Your task to perform on an android device: turn on the 24-hour format for clock Image 0: 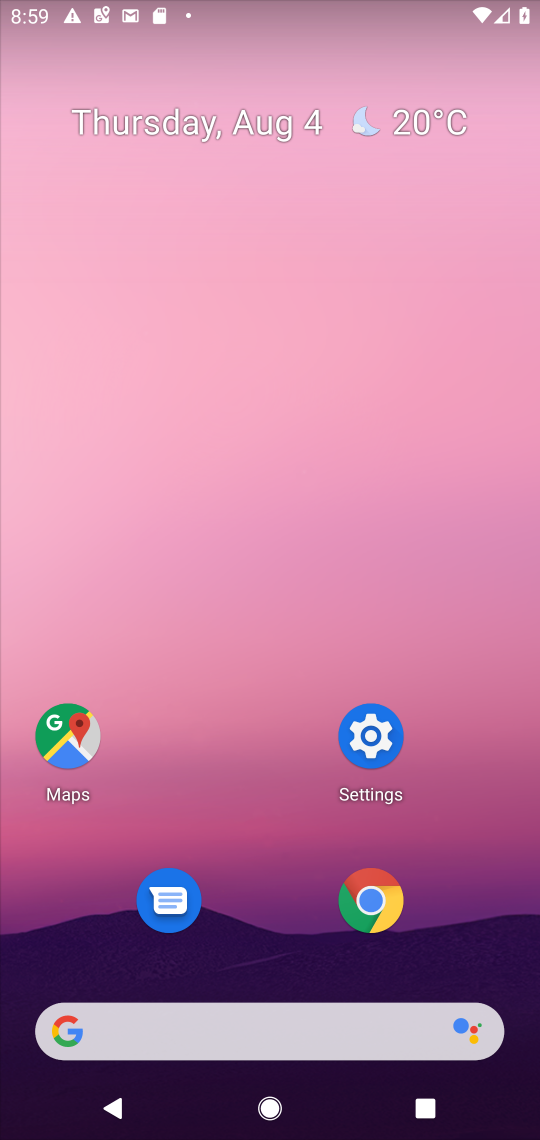
Step 0: press home button
Your task to perform on an android device: turn on the 24-hour format for clock Image 1: 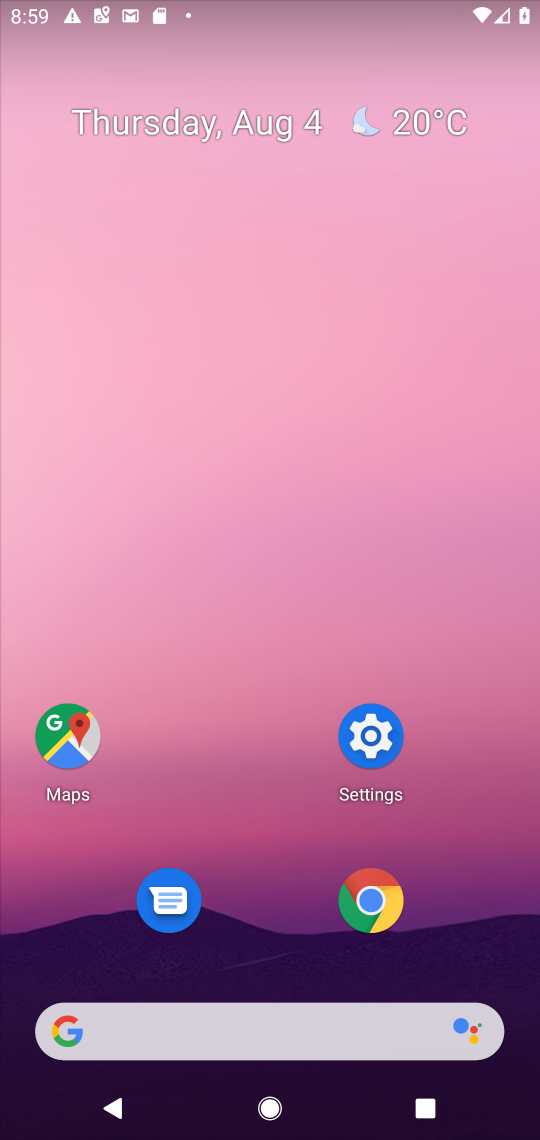
Step 1: drag from (248, 1005) to (414, 120)
Your task to perform on an android device: turn on the 24-hour format for clock Image 2: 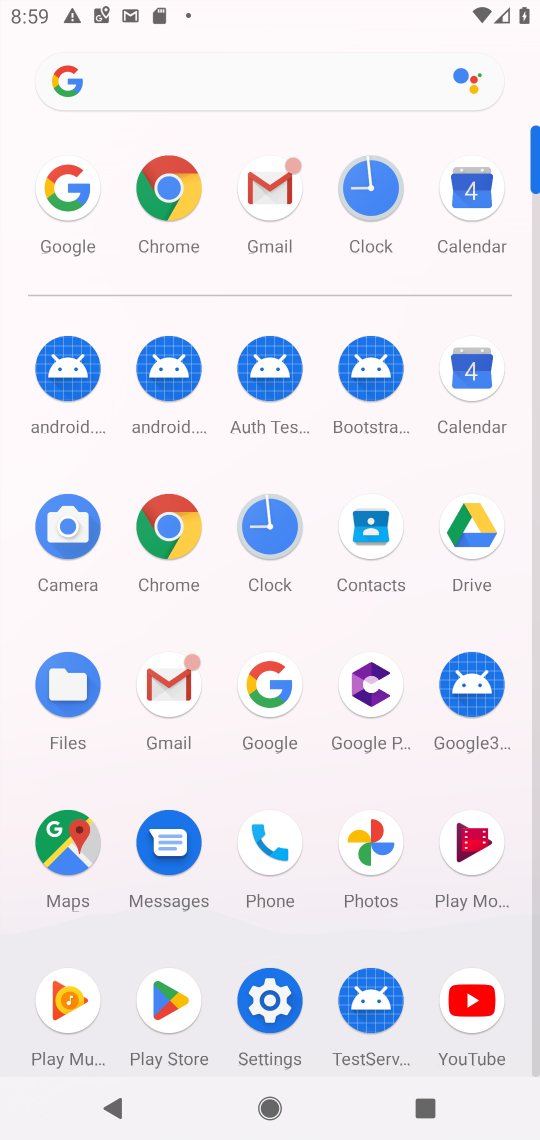
Step 2: click (268, 534)
Your task to perform on an android device: turn on the 24-hour format for clock Image 3: 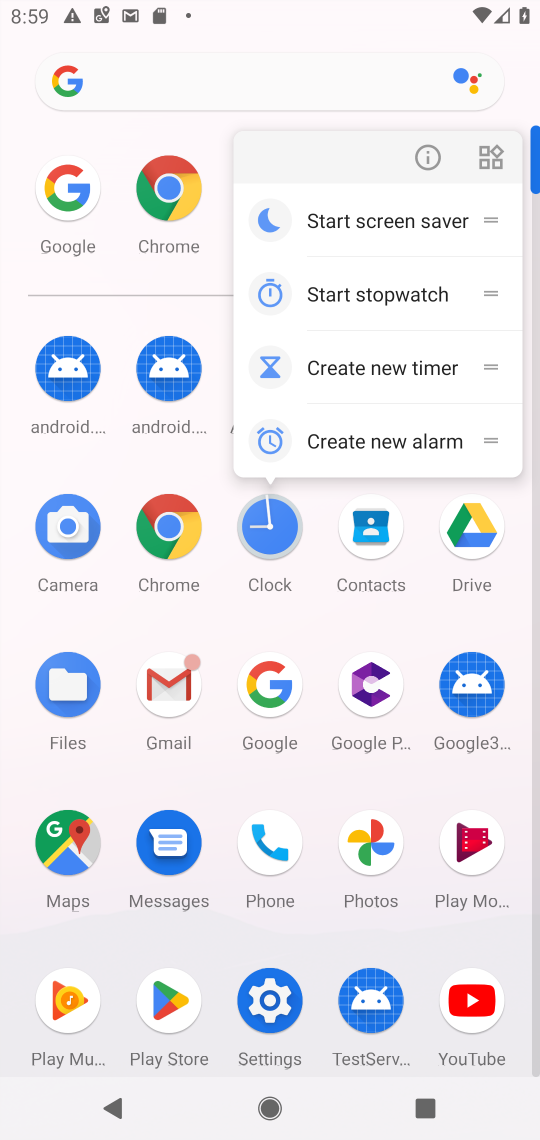
Step 3: click (268, 532)
Your task to perform on an android device: turn on the 24-hour format for clock Image 4: 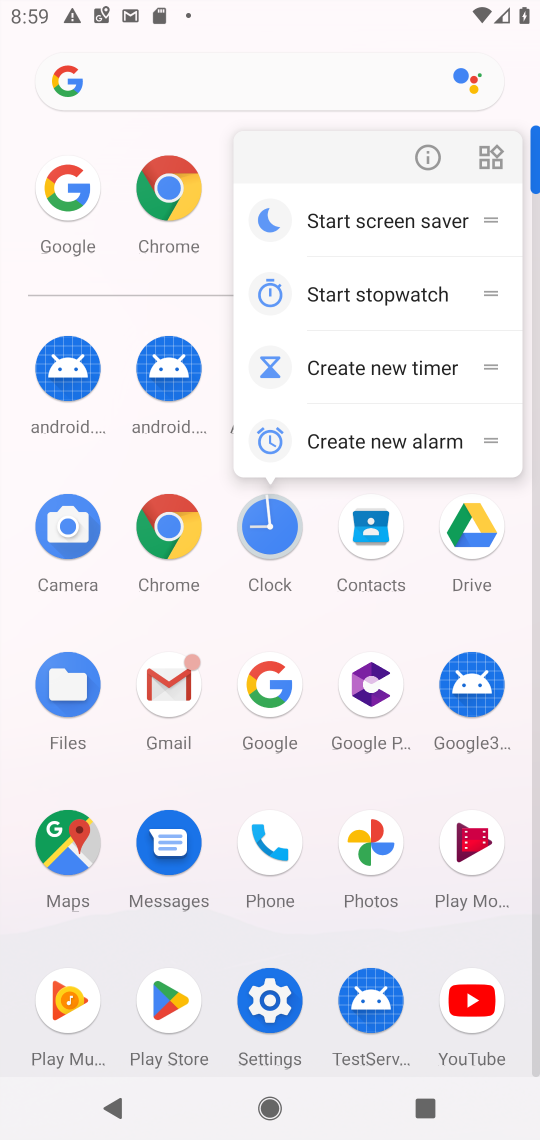
Step 4: click (268, 536)
Your task to perform on an android device: turn on the 24-hour format for clock Image 5: 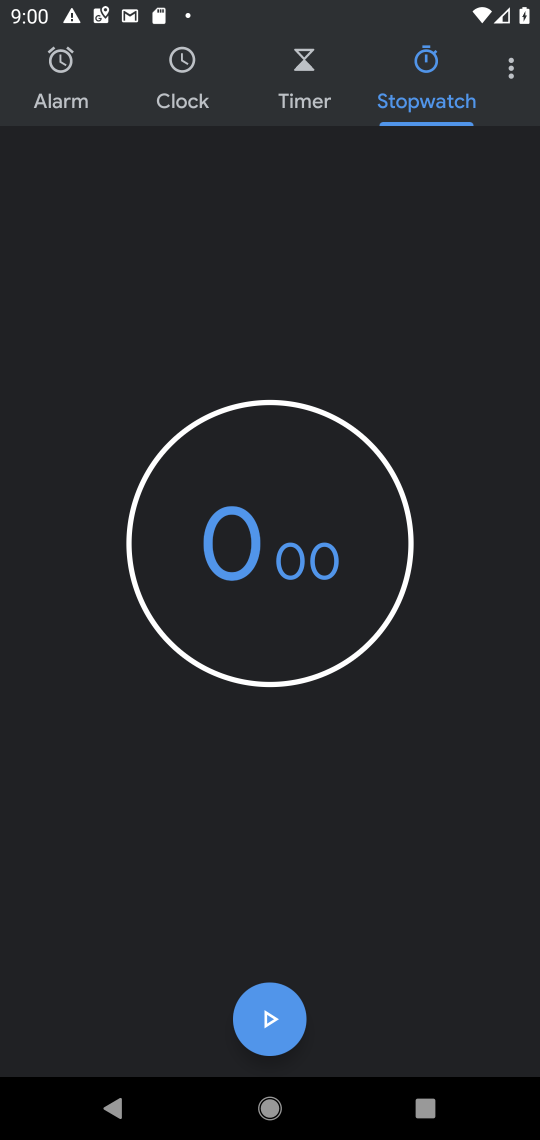
Step 5: click (510, 65)
Your task to perform on an android device: turn on the 24-hour format for clock Image 6: 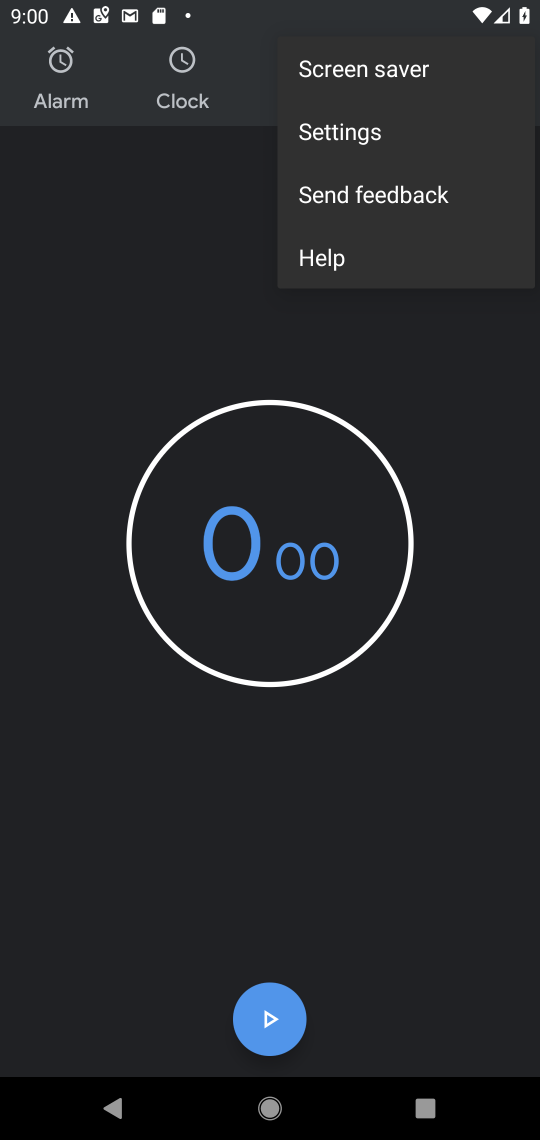
Step 6: click (340, 133)
Your task to perform on an android device: turn on the 24-hour format for clock Image 7: 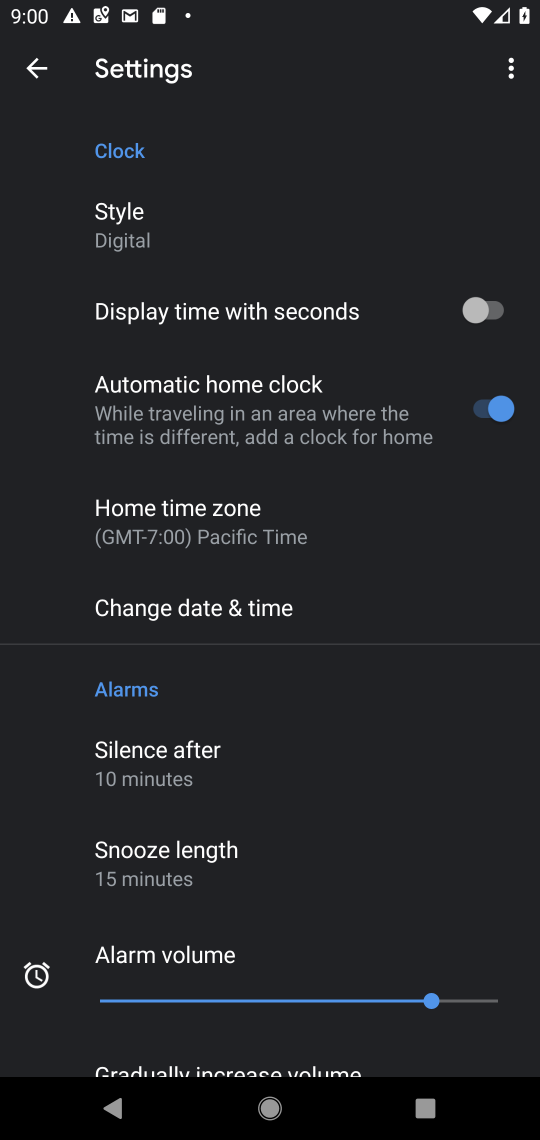
Step 7: click (207, 611)
Your task to perform on an android device: turn on the 24-hour format for clock Image 8: 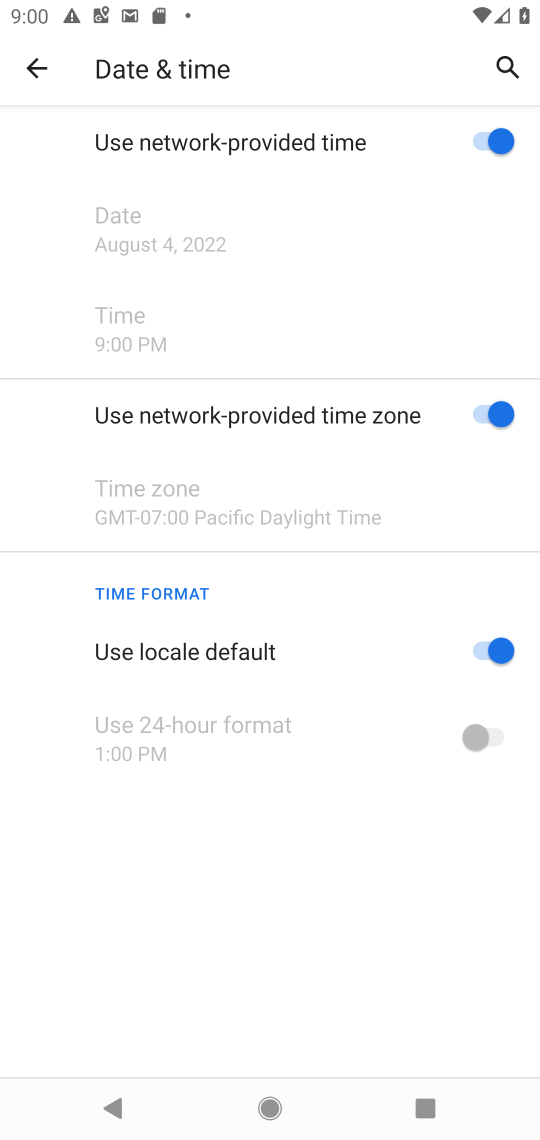
Step 8: click (478, 657)
Your task to perform on an android device: turn on the 24-hour format for clock Image 9: 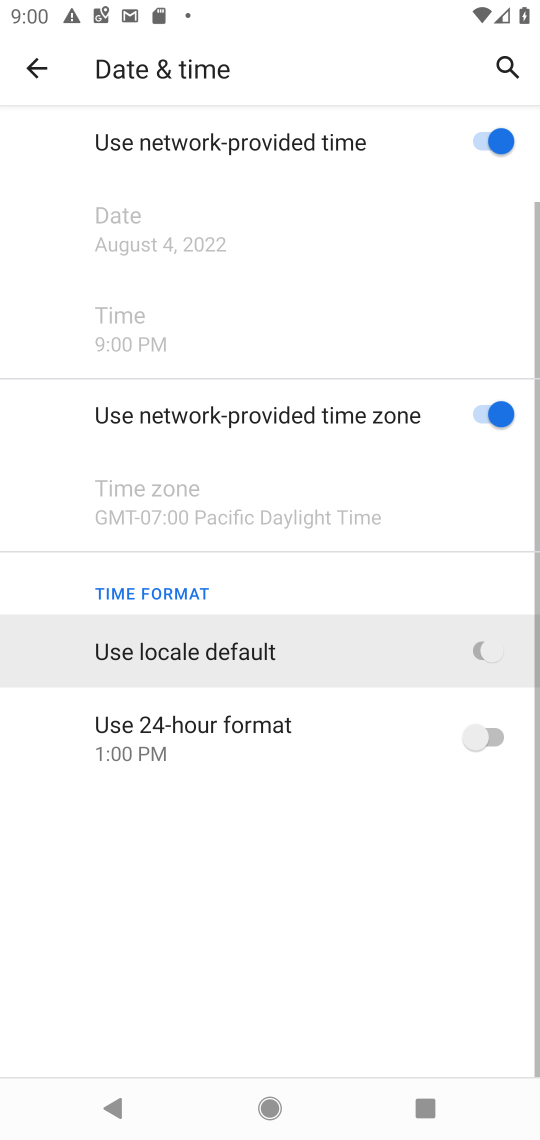
Step 9: click (489, 730)
Your task to perform on an android device: turn on the 24-hour format for clock Image 10: 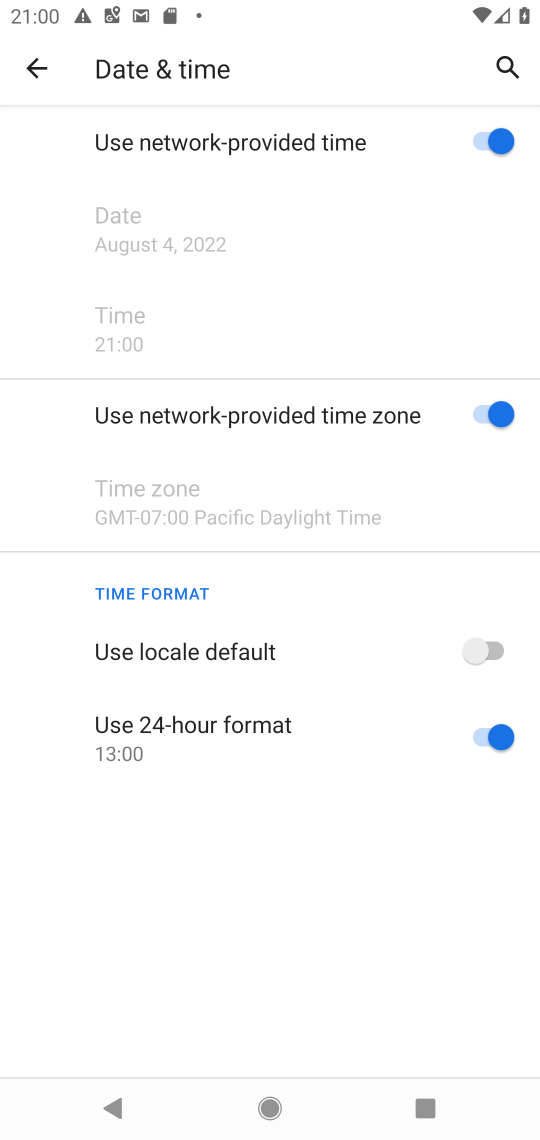
Step 10: task complete